Your task to perform on an android device: Open settings Image 0: 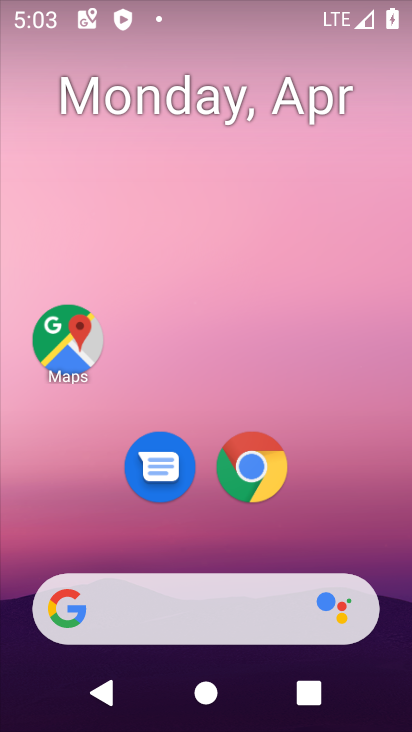
Step 0: drag from (368, 604) to (351, 0)
Your task to perform on an android device: Open settings Image 1: 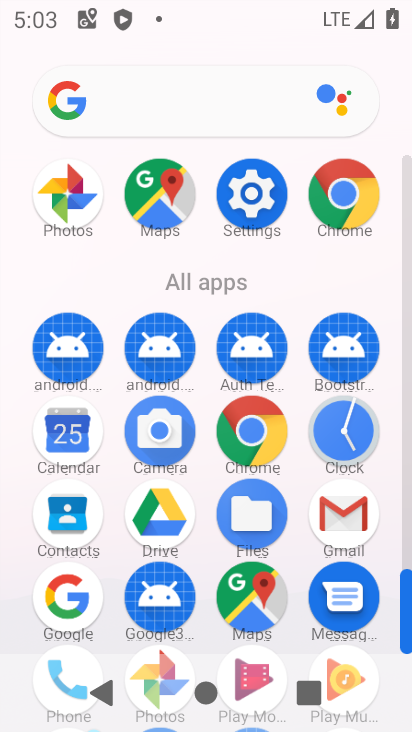
Step 1: click (245, 175)
Your task to perform on an android device: Open settings Image 2: 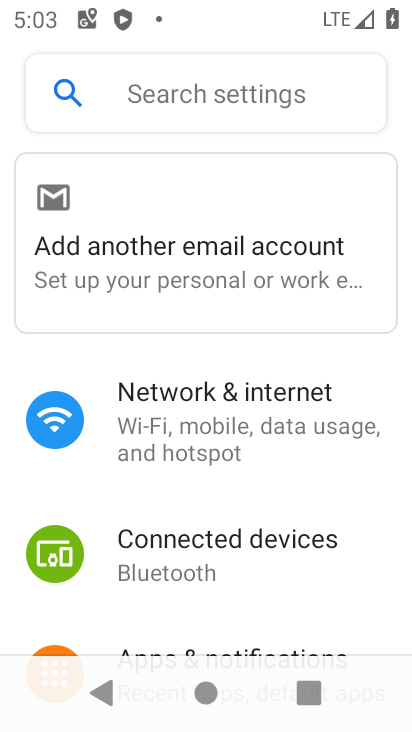
Step 2: task complete